Your task to perform on an android device: Open Google Chrome and click the shortcut for Amazon.com Image 0: 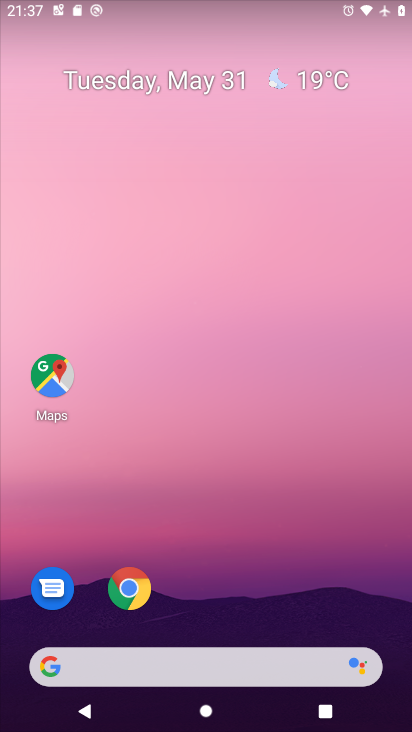
Step 0: press home button
Your task to perform on an android device: Open Google Chrome and click the shortcut for Amazon.com Image 1: 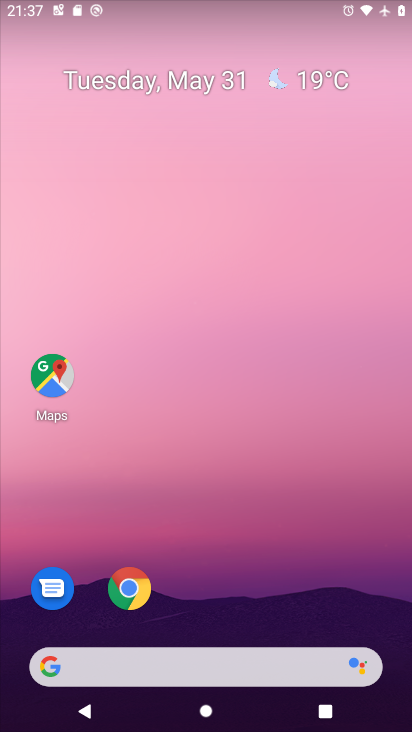
Step 1: click (131, 597)
Your task to perform on an android device: Open Google Chrome and click the shortcut for Amazon.com Image 2: 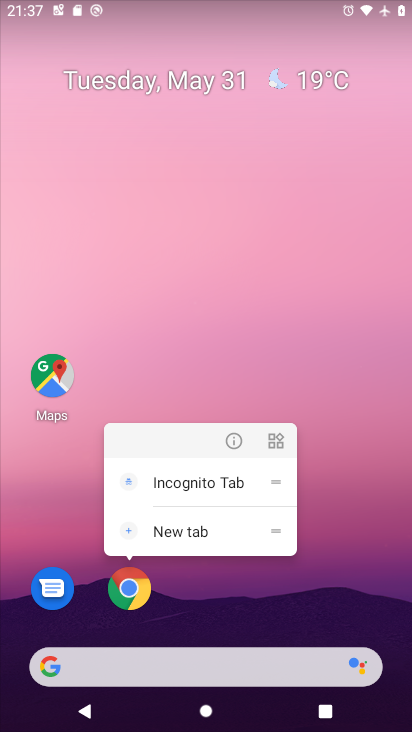
Step 2: click (129, 587)
Your task to perform on an android device: Open Google Chrome and click the shortcut for Amazon.com Image 3: 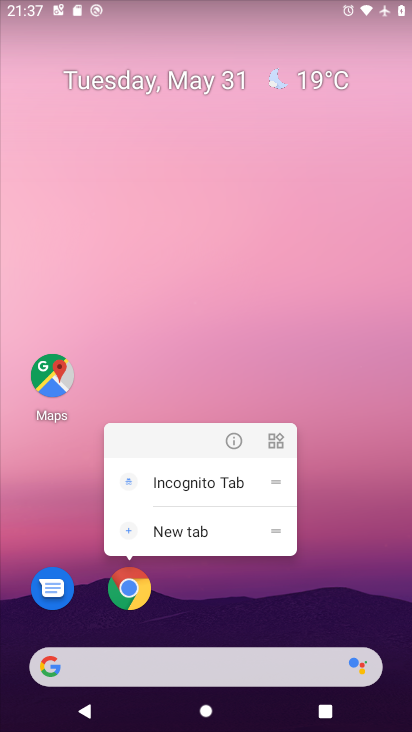
Step 3: click (129, 588)
Your task to perform on an android device: Open Google Chrome and click the shortcut for Amazon.com Image 4: 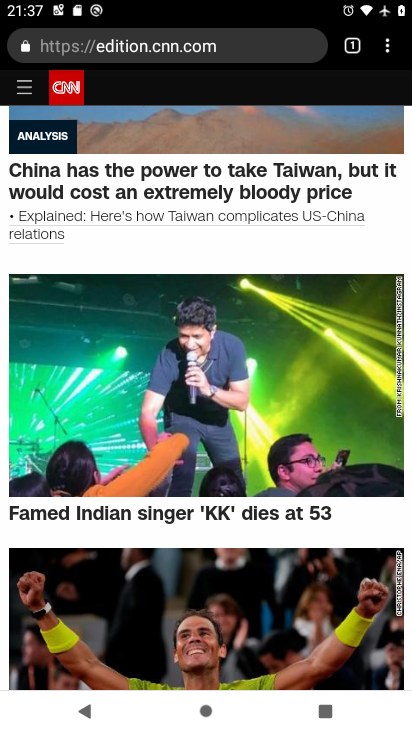
Step 4: drag from (387, 42) to (278, 89)
Your task to perform on an android device: Open Google Chrome and click the shortcut for Amazon.com Image 5: 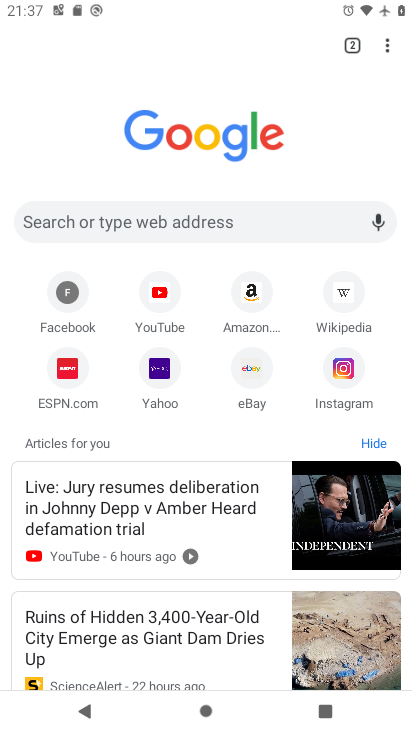
Step 5: click (248, 300)
Your task to perform on an android device: Open Google Chrome and click the shortcut for Amazon.com Image 6: 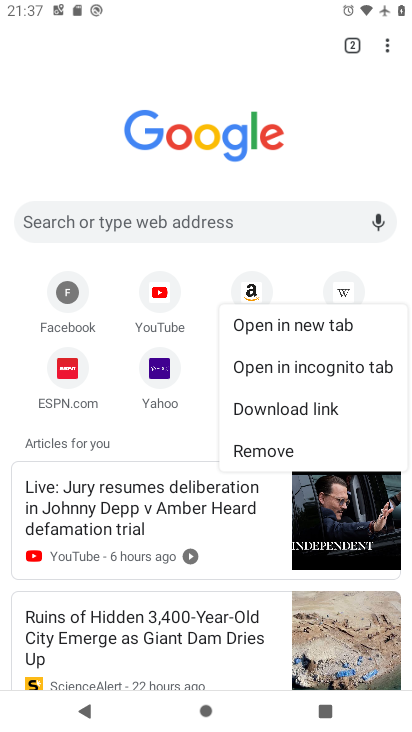
Step 6: click (250, 286)
Your task to perform on an android device: Open Google Chrome and click the shortcut for Amazon.com Image 7: 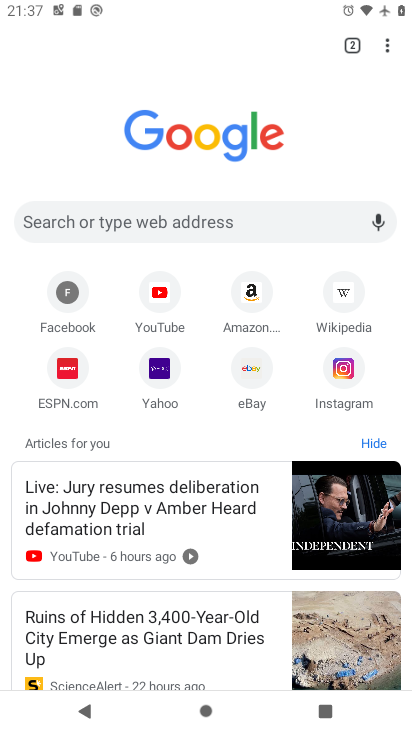
Step 7: click (250, 289)
Your task to perform on an android device: Open Google Chrome and click the shortcut for Amazon.com Image 8: 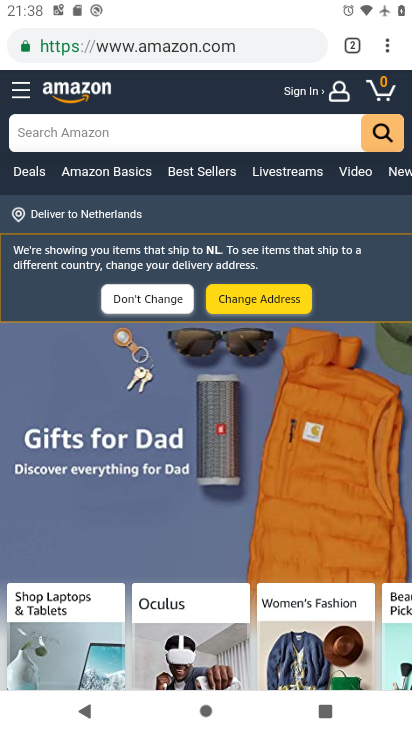
Step 8: task complete